Your task to perform on an android device: Open Wikipedia Image 0: 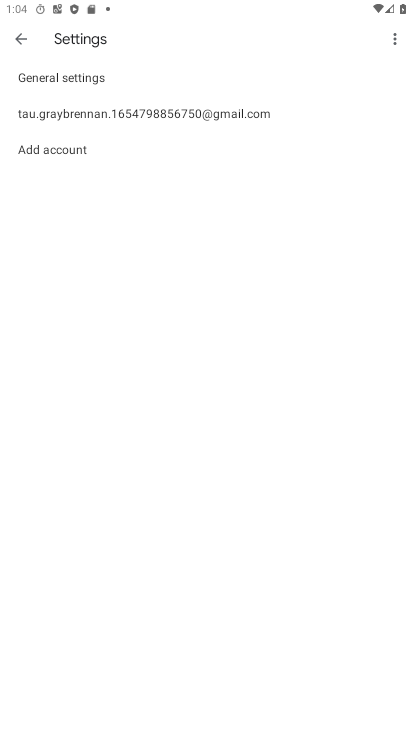
Step 0: press home button
Your task to perform on an android device: Open Wikipedia Image 1: 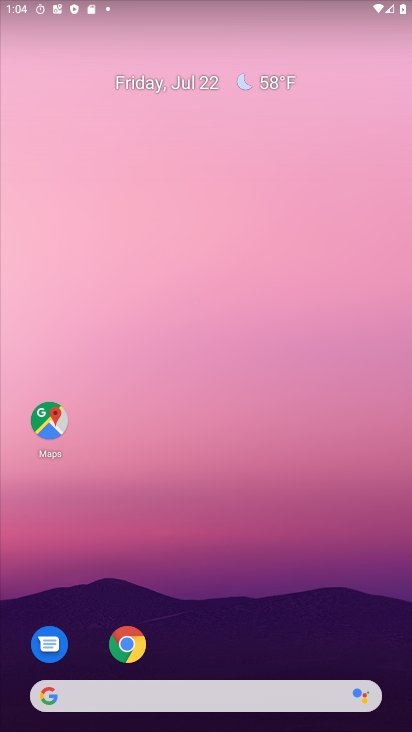
Step 1: drag from (208, 552) to (234, 191)
Your task to perform on an android device: Open Wikipedia Image 2: 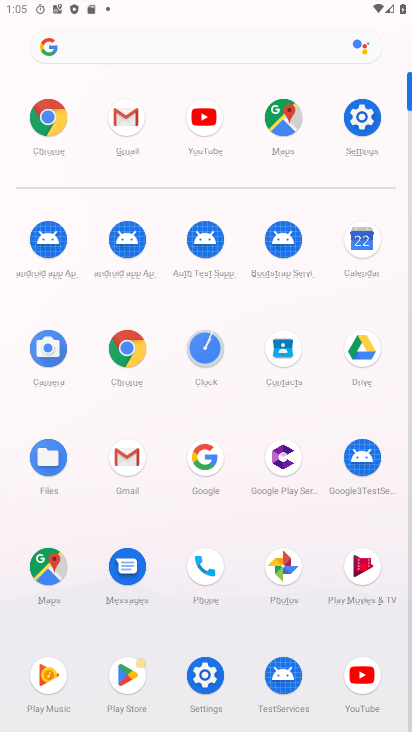
Step 2: click (121, 359)
Your task to perform on an android device: Open Wikipedia Image 3: 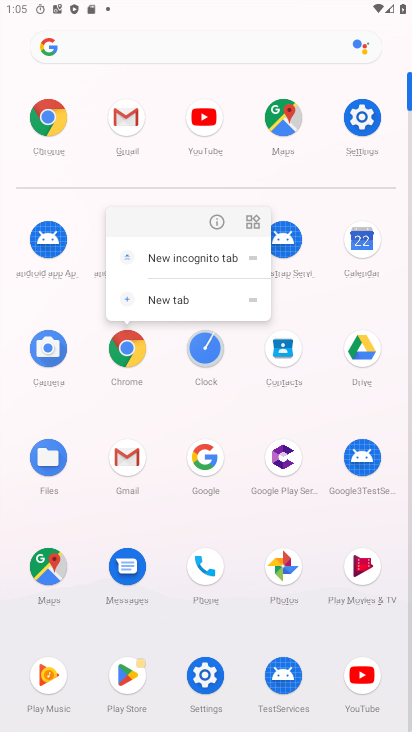
Step 3: click (224, 224)
Your task to perform on an android device: Open Wikipedia Image 4: 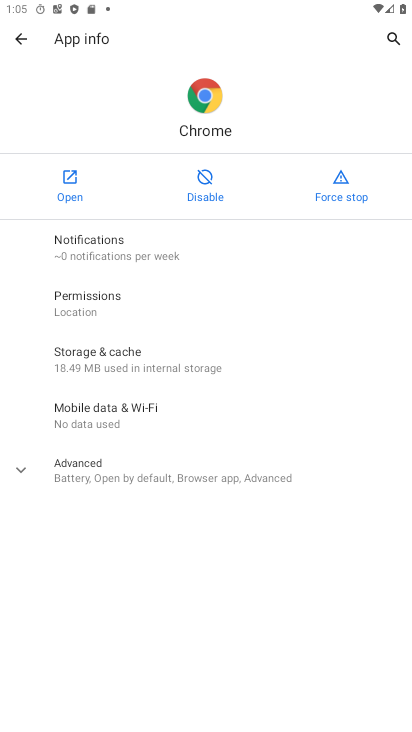
Step 4: click (68, 171)
Your task to perform on an android device: Open Wikipedia Image 5: 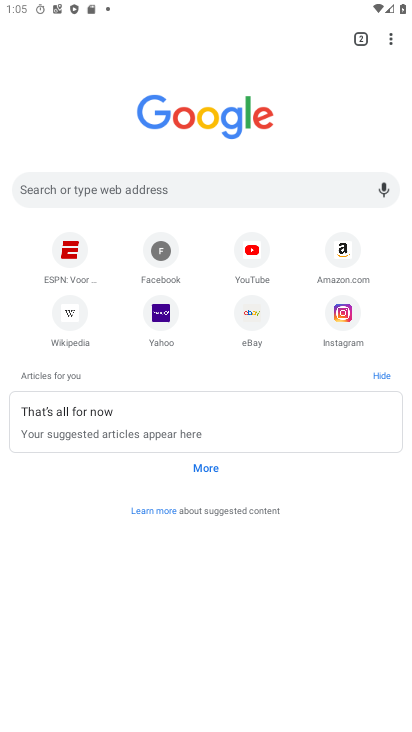
Step 5: click (134, 198)
Your task to perform on an android device: Open Wikipedia Image 6: 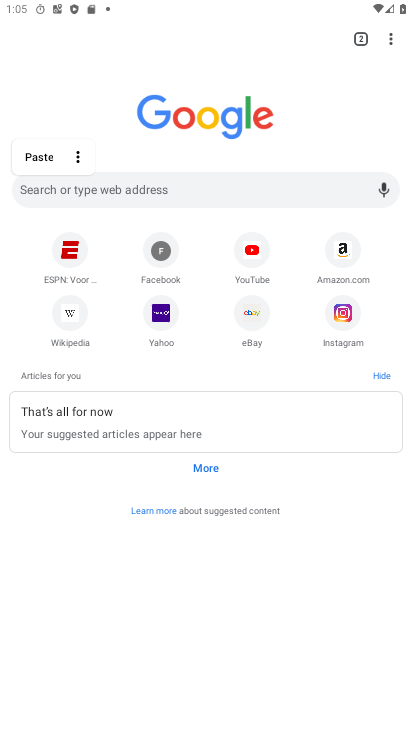
Step 6: click (59, 315)
Your task to perform on an android device: Open Wikipedia Image 7: 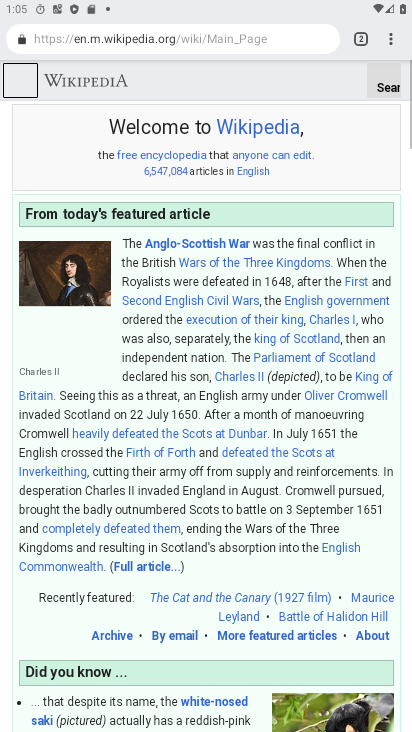
Step 7: task complete